Your task to perform on an android device: turn off location history Image 0: 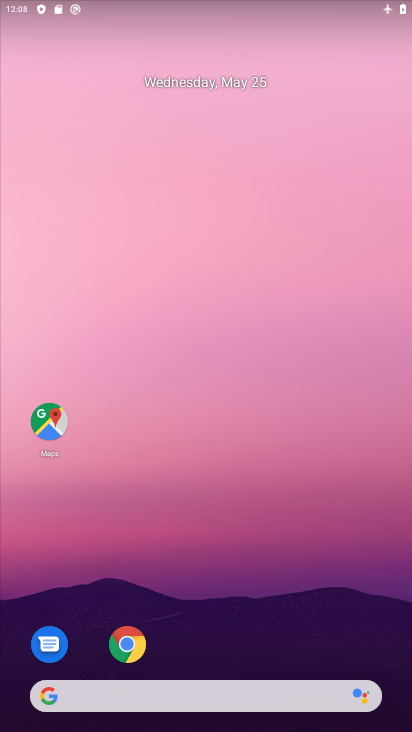
Step 0: drag from (255, 577) to (197, 117)
Your task to perform on an android device: turn off location history Image 1: 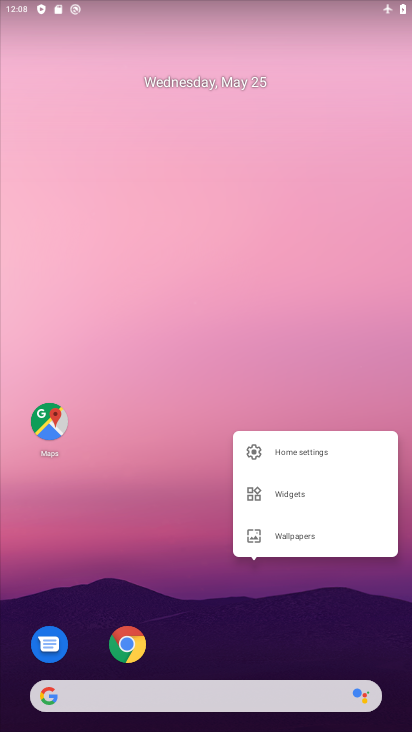
Step 1: click (115, 469)
Your task to perform on an android device: turn off location history Image 2: 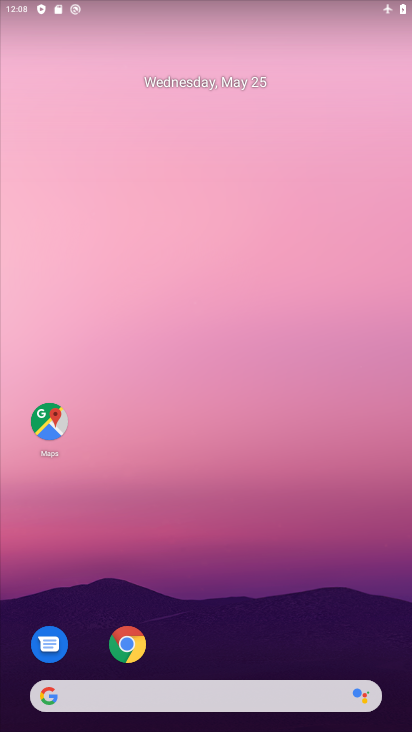
Step 2: drag from (173, 520) to (101, 51)
Your task to perform on an android device: turn off location history Image 3: 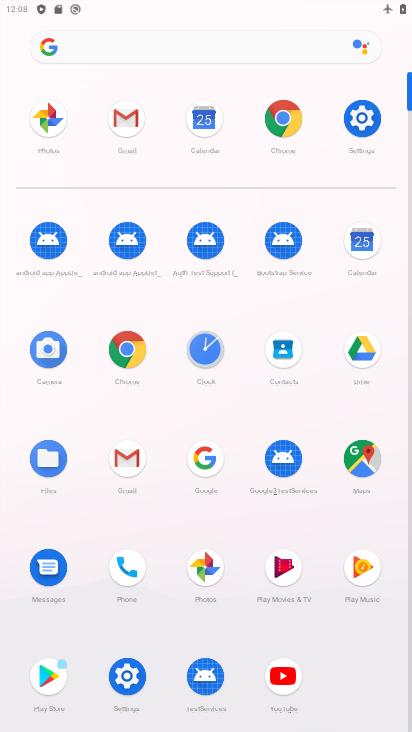
Step 3: click (357, 117)
Your task to perform on an android device: turn off location history Image 4: 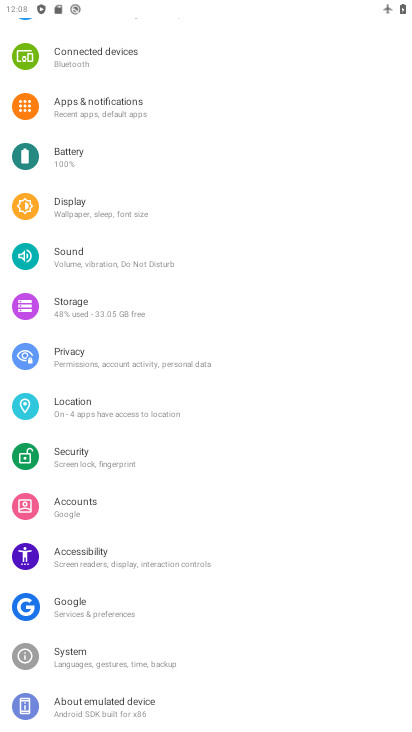
Step 4: click (72, 403)
Your task to perform on an android device: turn off location history Image 5: 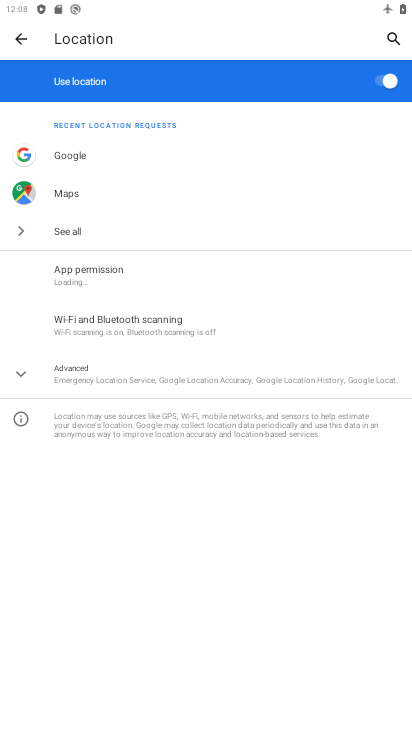
Step 5: click (29, 367)
Your task to perform on an android device: turn off location history Image 6: 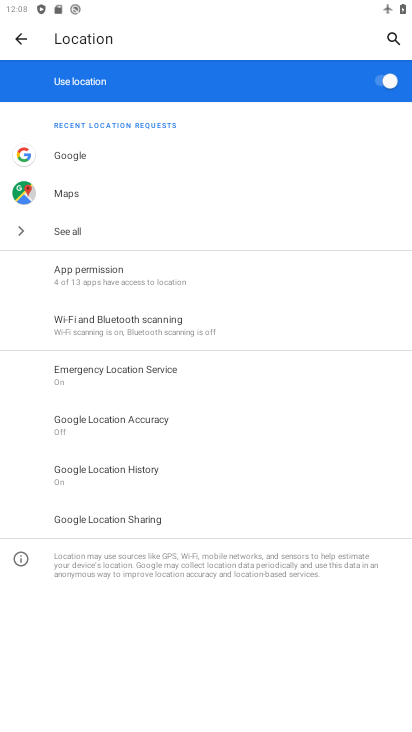
Step 6: click (113, 464)
Your task to perform on an android device: turn off location history Image 7: 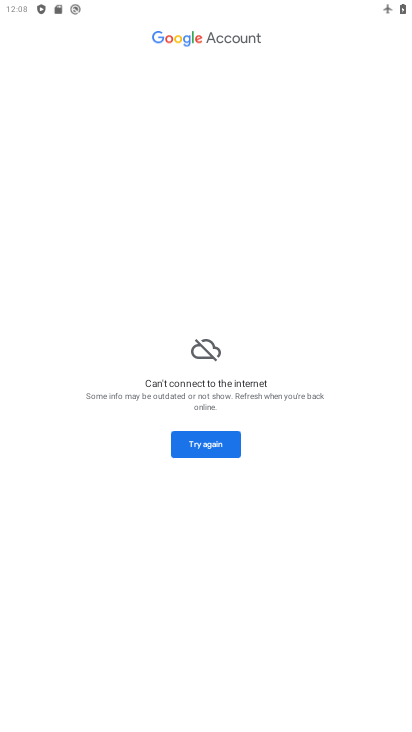
Step 7: click (210, 447)
Your task to perform on an android device: turn off location history Image 8: 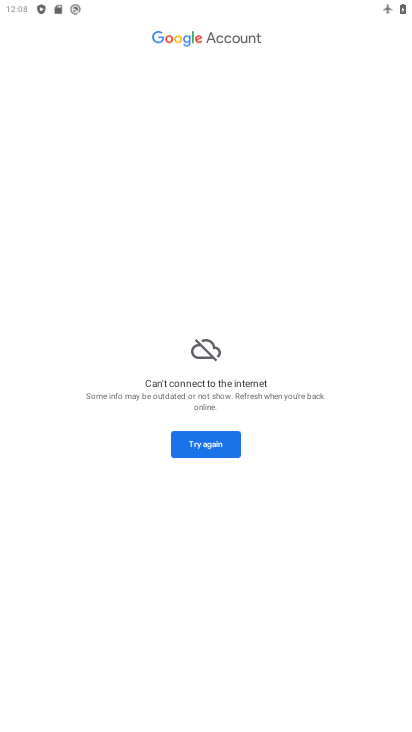
Step 8: task complete